Your task to perform on an android device: add a contact in the contacts app Image 0: 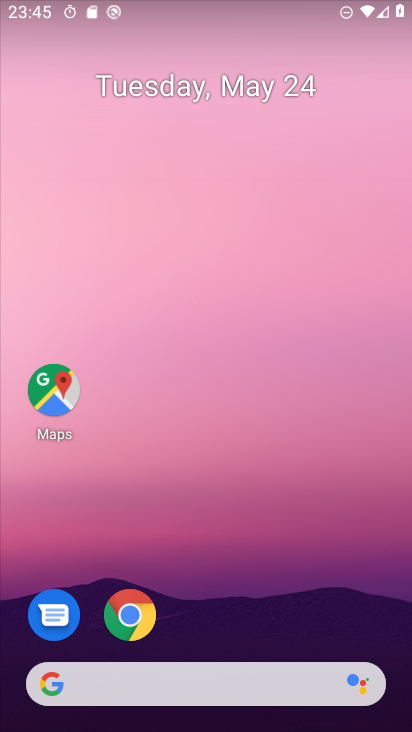
Step 0: drag from (249, 696) to (192, 0)
Your task to perform on an android device: add a contact in the contacts app Image 1: 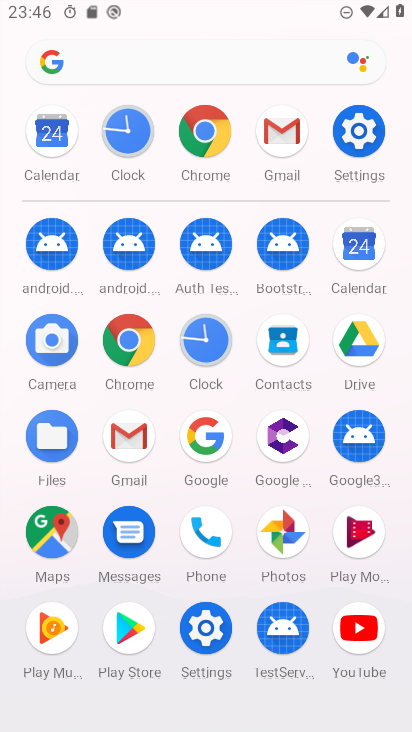
Step 1: click (212, 537)
Your task to perform on an android device: add a contact in the contacts app Image 2: 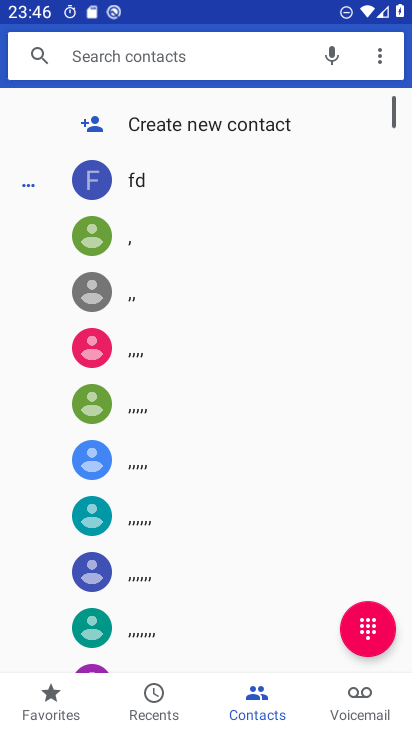
Step 2: click (219, 132)
Your task to perform on an android device: add a contact in the contacts app Image 3: 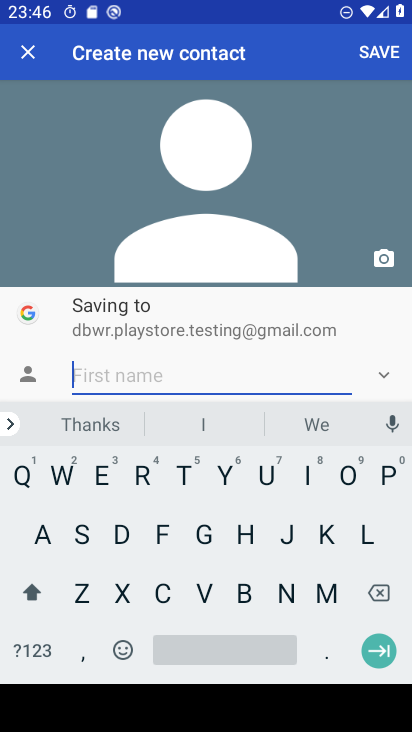
Step 3: click (170, 499)
Your task to perform on an android device: add a contact in the contacts app Image 4: 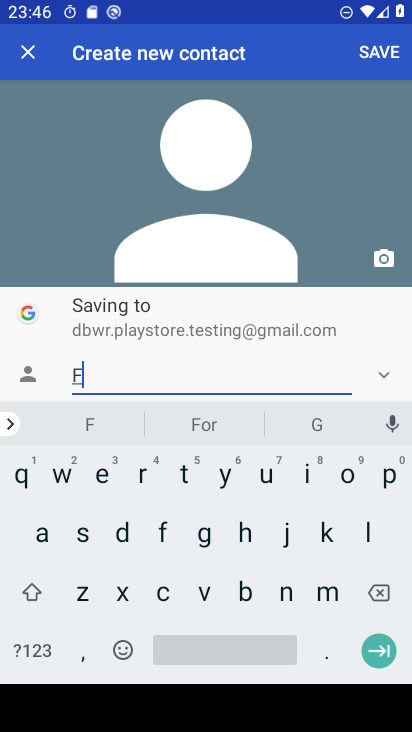
Step 4: click (137, 556)
Your task to perform on an android device: add a contact in the contacts app Image 5: 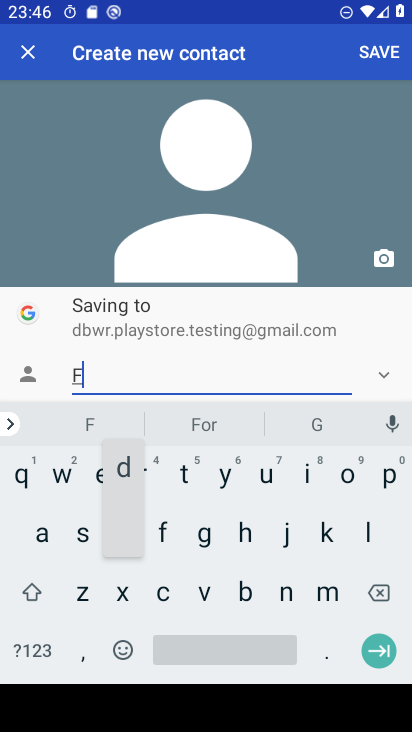
Step 5: drag from (94, 563) to (249, 487)
Your task to perform on an android device: add a contact in the contacts app Image 6: 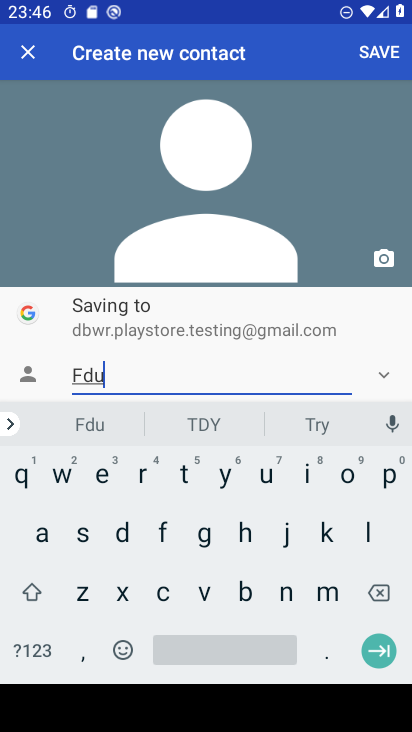
Step 6: click (392, 46)
Your task to perform on an android device: add a contact in the contacts app Image 7: 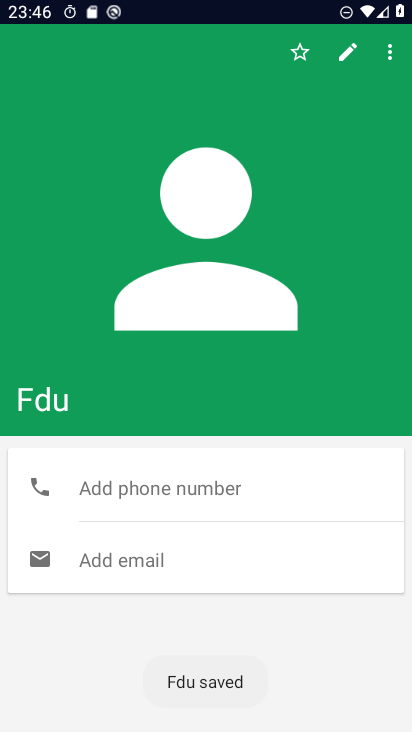
Step 7: task complete